Your task to perform on an android device: Open privacy settings Image 0: 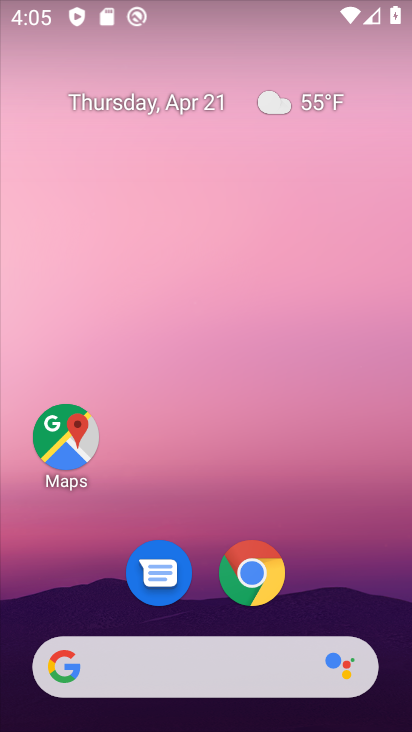
Step 0: drag from (308, 603) to (269, 36)
Your task to perform on an android device: Open privacy settings Image 1: 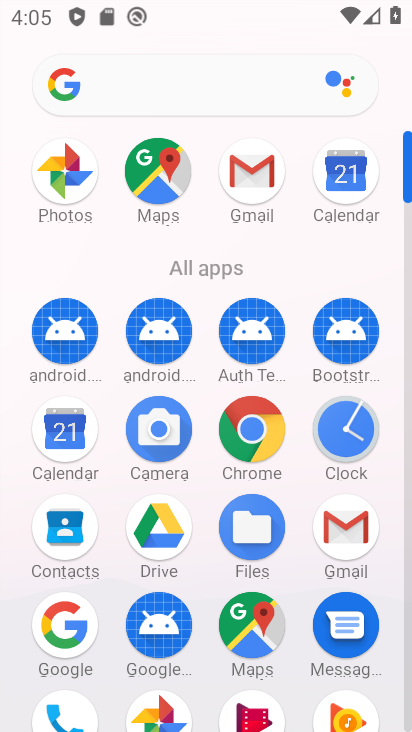
Step 1: drag from (190, 665) to (176, 158)
Your task to perform on an android device: Open privacy settings Image 2: 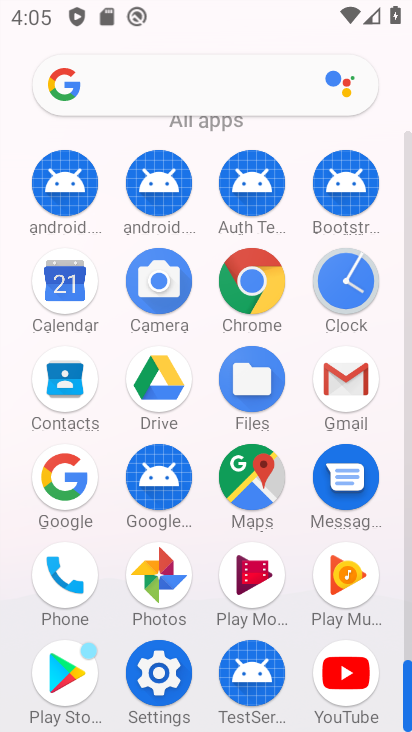
Step 2: click (171, 689)
Your task to perform on an android device: Open privacy settings Image 3: 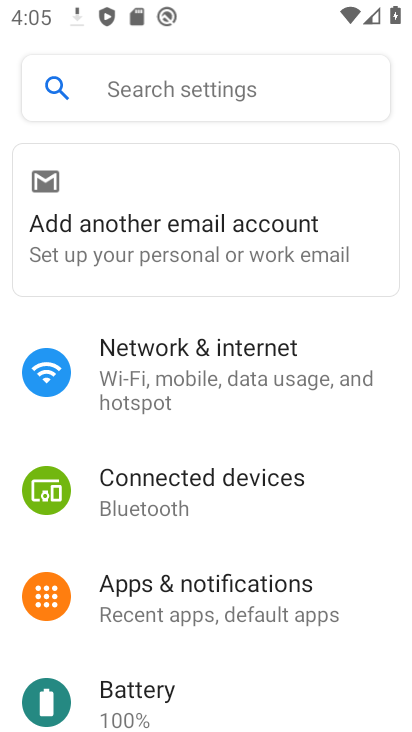
Step 3: drag from (215, 688) to (147, 231)
Your task to perform on an android device: Open privacy settings Image 4: 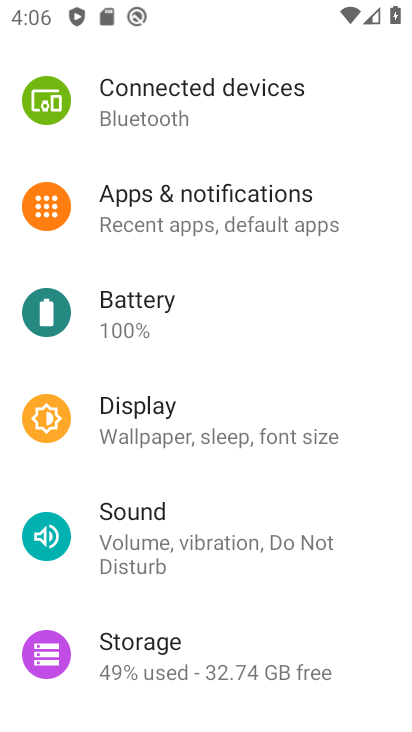
Step 4: drag from (193, 651) to (165, 193)
Your task to perform on an android device: Open privacy settings Image 5: 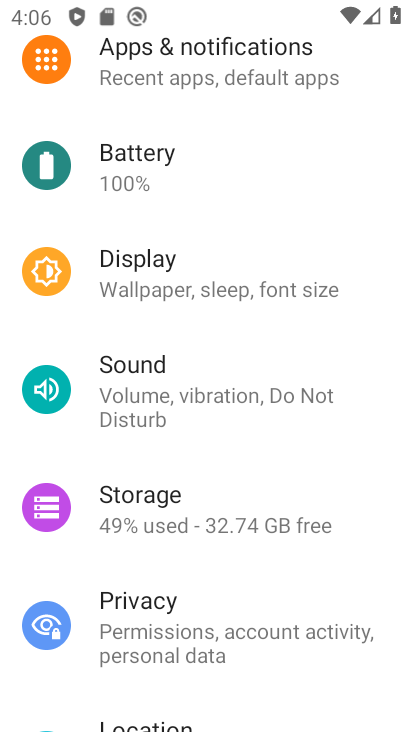
Step 5: click (140, 614)
Your task to perform on an android device: Open privacy settings Image 6: 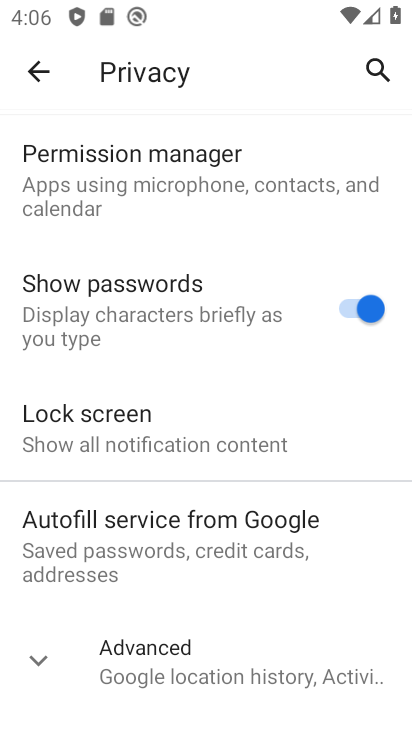
Step 6: task complete